Your task to perform on an android device: Go to network settings Image 0: 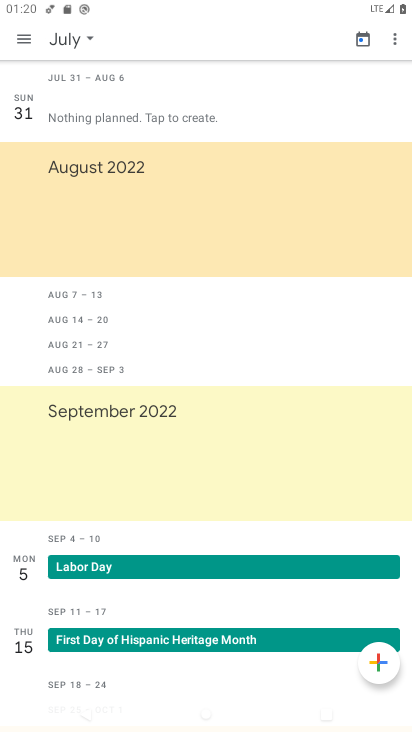
Step 0: press home button
Your task to perform on an android device: Go to network settings Image 1: 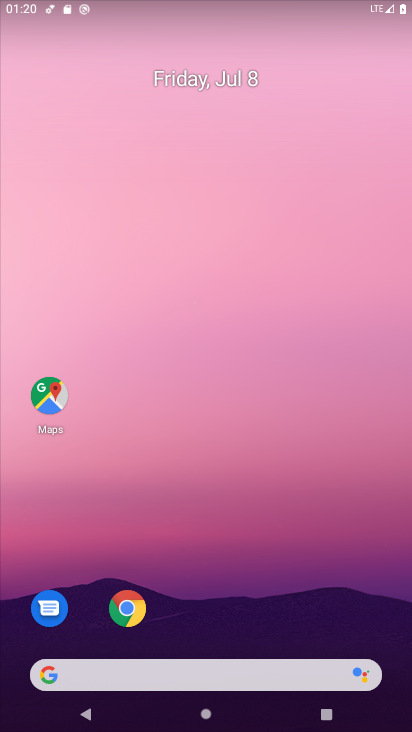
Step 1: click (212, 316)
Your task to perform on an android device: Go to network settings Image 2: 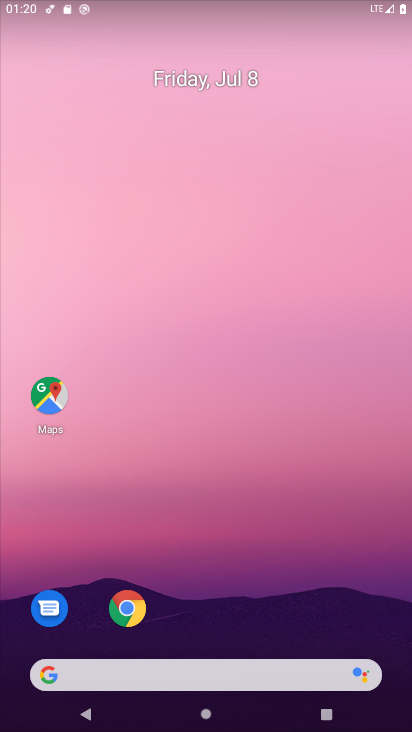
Step 2: drag from (221, 639) to (226, 192)
Your task to perform on an android device: Go to network settings Image 3: 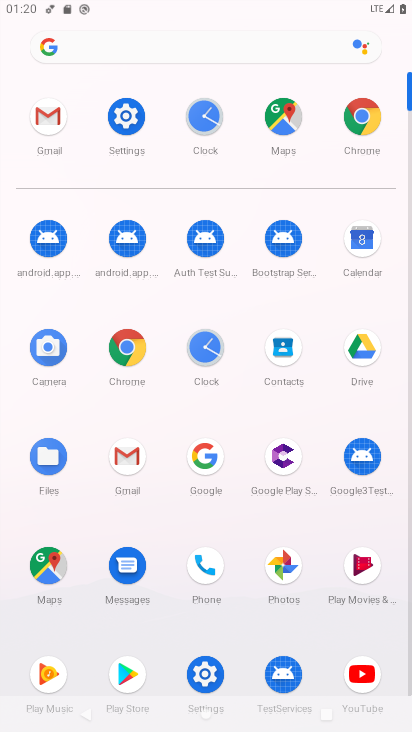
Step 3: click (121, 120)
Your task to perform on an android device: Go to network settings Image 4: 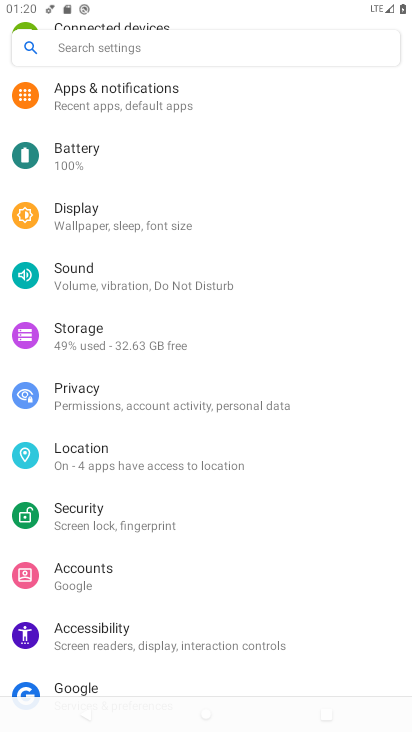
Step 4: drag from (115, 133) to (131, 514)
Your task to perform on an android device: Go to network settings Image 5: 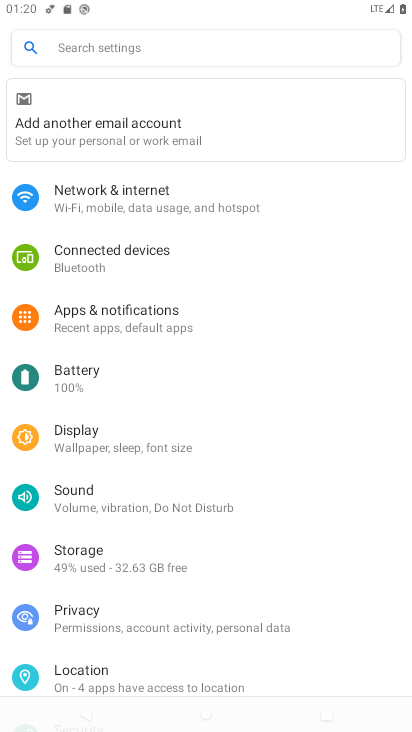
Step 5: click (126, 199)
Your task to perform on an android device: Go to network settings Image 6: 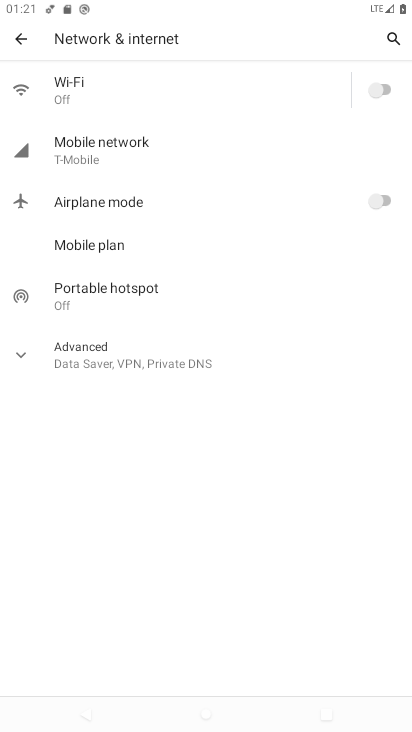
Step 6: task complete